Your task to perform on an android device: open app "Gboard" (install if not already installed) Image 0: 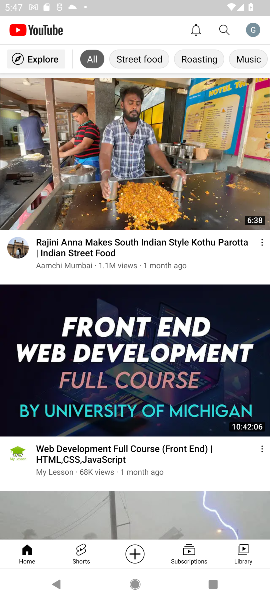
Step 0: press home button
Your task to perform on an android device: open app "Gboard" (install if not already installed) Image 1: 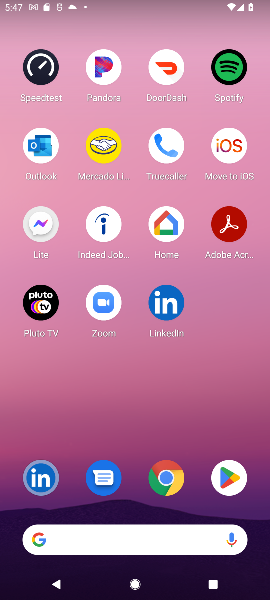
Step 1: click (225, 469)
Your task to perform on an android device: open app "Gboard" (install if not already installed) Image 2: 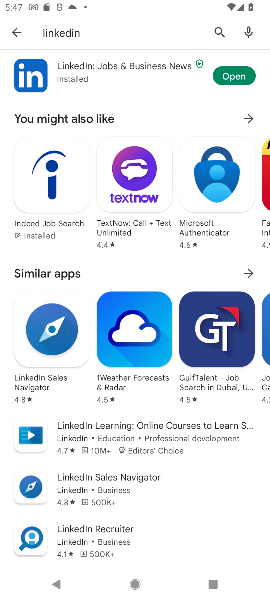
Step 2: click (216, 28)
Your task to perform on an android device: open app "Gboard" (install if not already installed) Image 3: 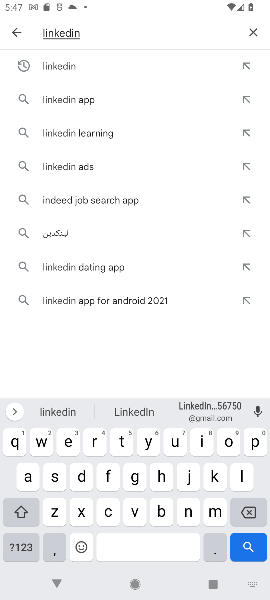
Step 3: click (250, 30)
Your task to perform on an android device: open app "Gboard" (install if not already installed) Image 4: 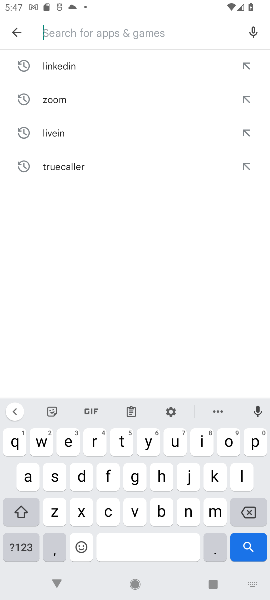
Step 4: click (134, 481)
Your task to perform on an android device: open app "Gboard" (install if not already installed) Image 5: 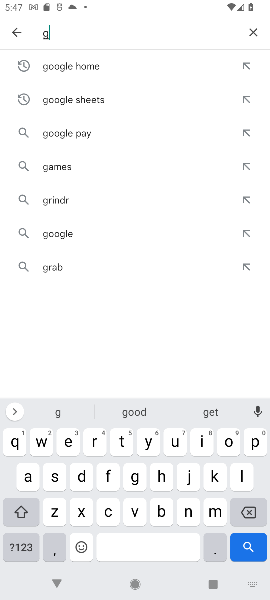
Step 5: click (158, 513)
Your task to perform on an android device: open app "Gboard" (install if not already installed) Image 6: 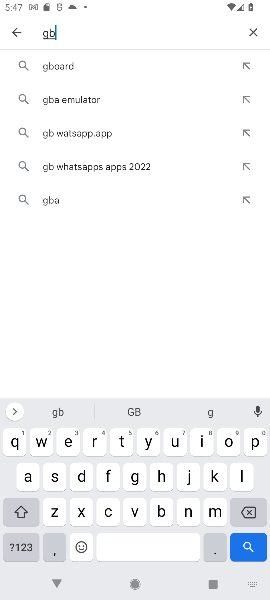
Step 6: click (65, 64)
Your task to perform on an android device: open app "Gboard" (install if not already installed) Image 7: 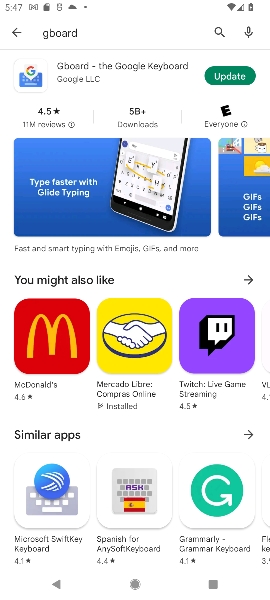
Step 7: click (223, 72)
Your task to perform on an android device: open app "Gboard" (install if not already installed) Image 8: 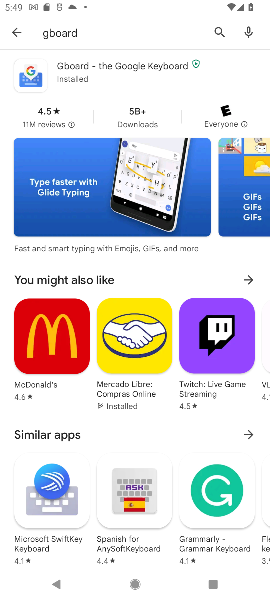
Step 8: task complete